Your task to perform on an android device: turn off translation in the chrome app Image 0: 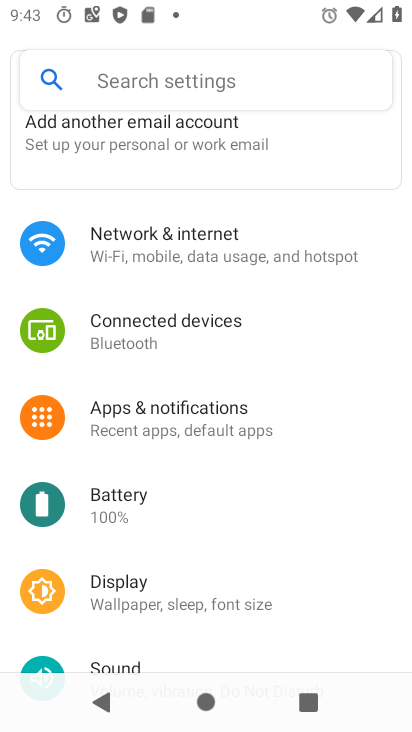
Step 0: press home button
Your task to perform on an android device: turn off translation in the chrome app Image 1: 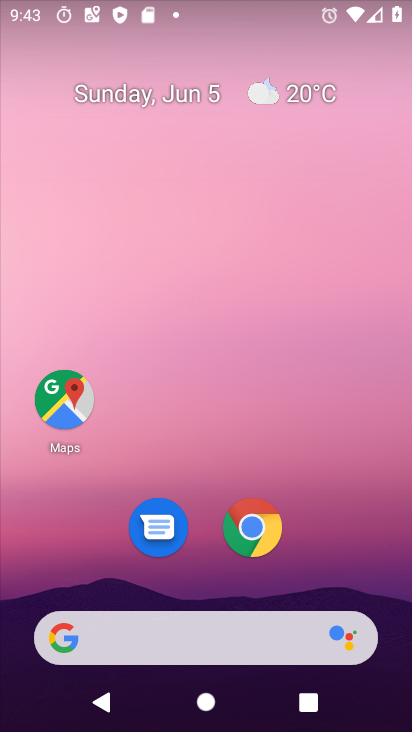
Step 1: drag from (374, 493) to (392, 10)
Your task to perform on an android device: turn off translation in the chrome app Image 2: 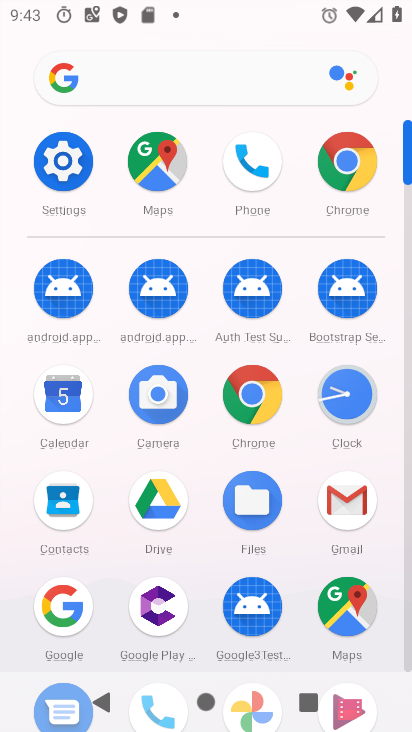
Step 2: click (343, 160)
Your task to perform on an android device: turn off translation in the chrome app Image 3: 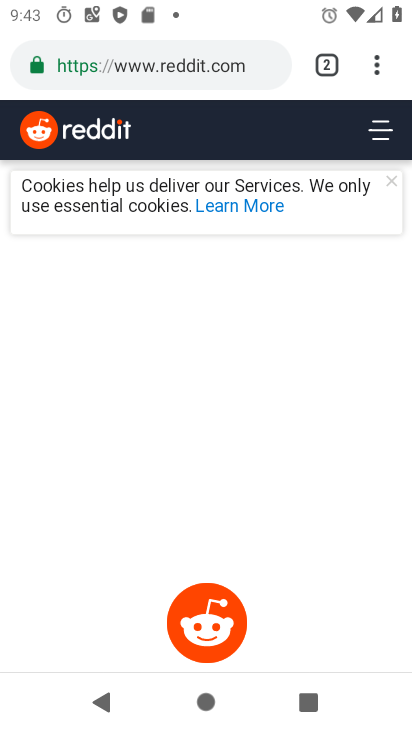
Step 3: drag from (378, 73) to (147, 568)
Your task to perform on an android device: turn off translation in the chrome app Image 4: 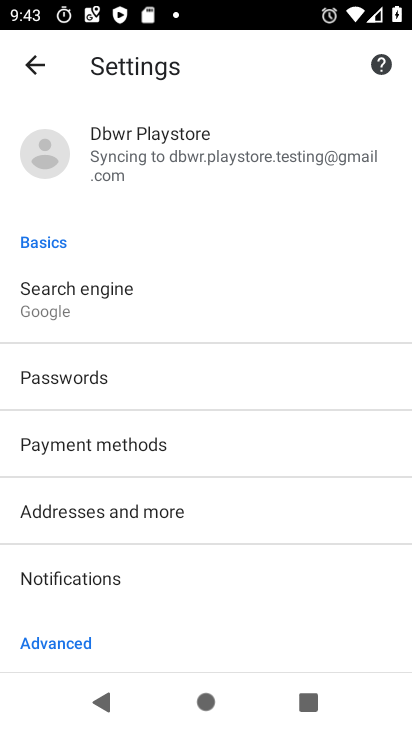
Step 4: drag from (120, 617) to (229, 175)
Your task to perform on an android device: turn off translation in the chrome app Image 5: 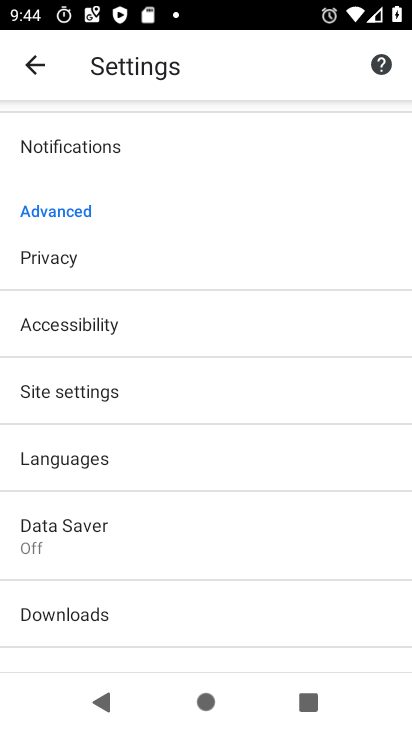
Step 5: click (109, 462)
Your task to perform on an android device: turn off translation in the chrome app Image 6: 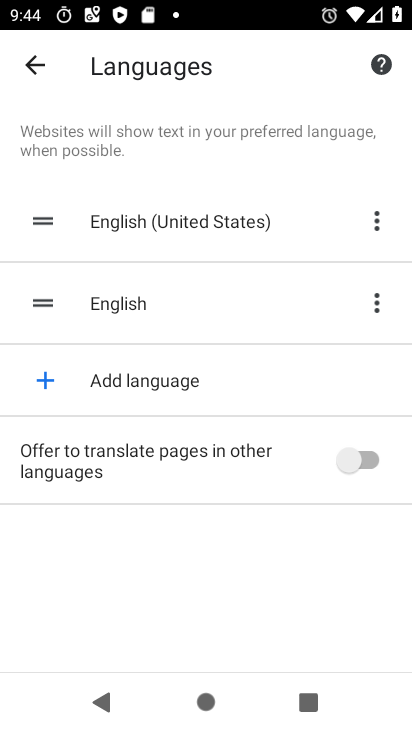
Step 6: task complete